Your task to perform on an android device: What's on my calendar today? Image 0: 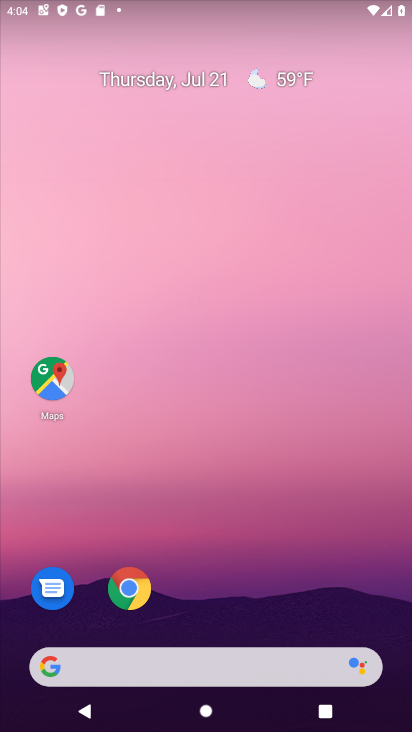
Step 0: drag from (232, 725) to (157, 104)
Your task to perform on an android device: What's on my calendar today? Image 1: 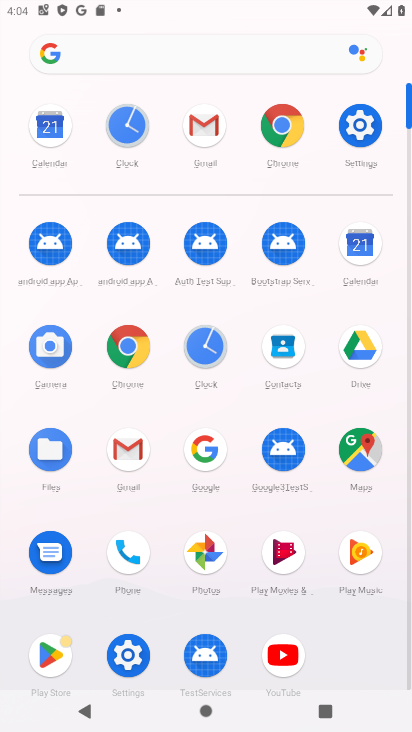
Step 1: click (365, 241)
Your task to perform on an android device: What's on my calendar today? Image 2: 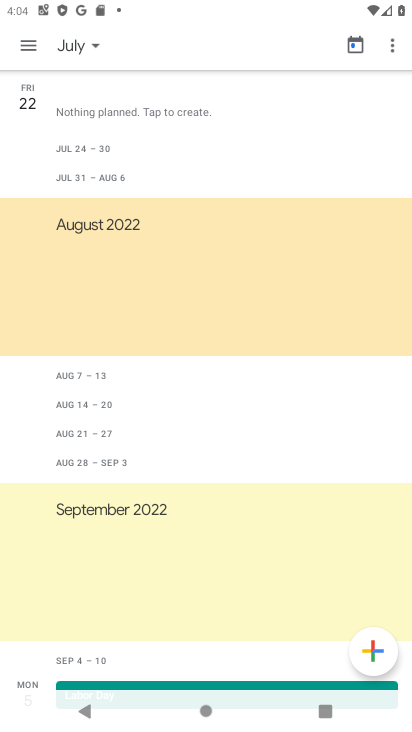
Step 2: click (100, 48)
Your task to perform on an android device: What's on my calendar today? Image 3: 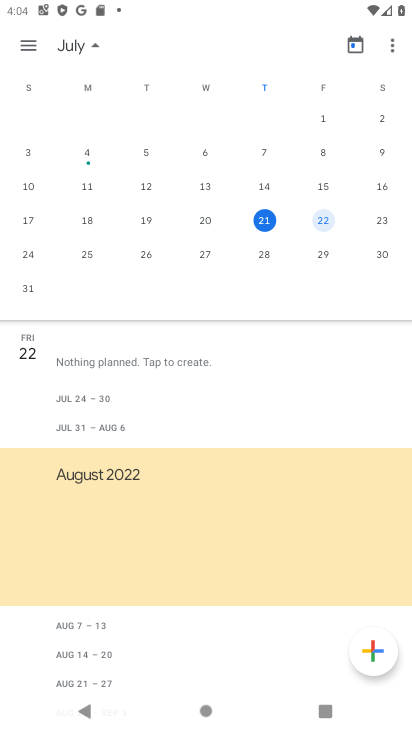
Step 3: click (268, 223)
Your task to perform on an android device: What's on my calendar today? Image 4: 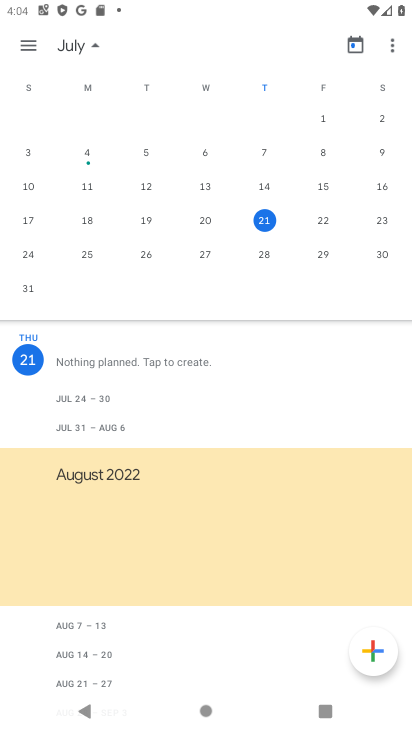
Step 4: click (268, 224)
Your task to perform on an android device: What's on my calendar today? Image 5: 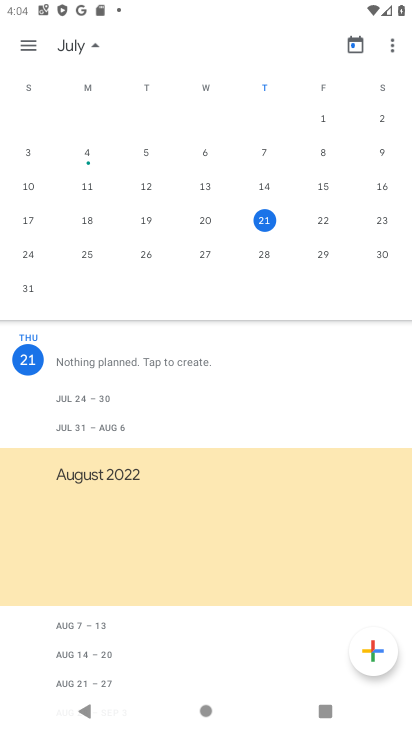
Step 5: task complete